Your task to perform on an android device: read, delete, or share a saved page in the chrome app Image 0: 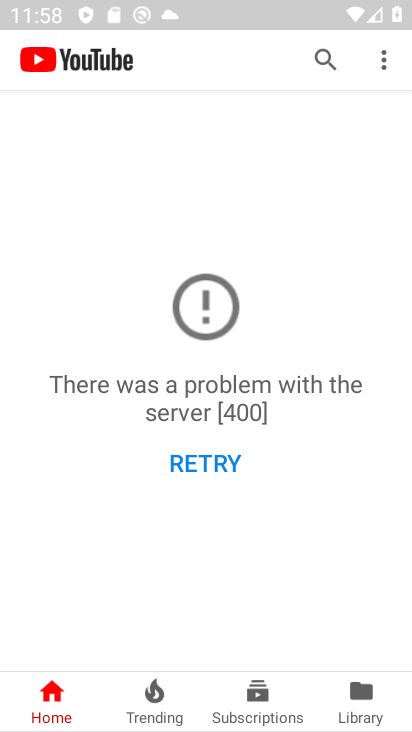
Step 0: press home button
Your task to perform on an android device: read, delete, or share a saved page in the chrome app Image 1: 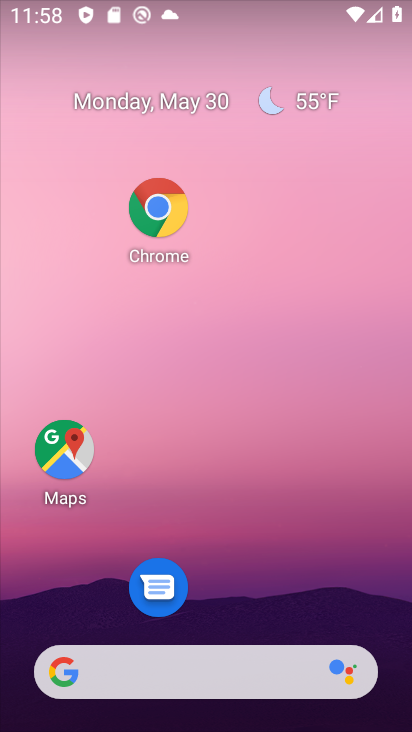
Step 1: click (163, 254)
Your task to perform on an android device: read, delete, or share a saved page in the chrome app Image 2: 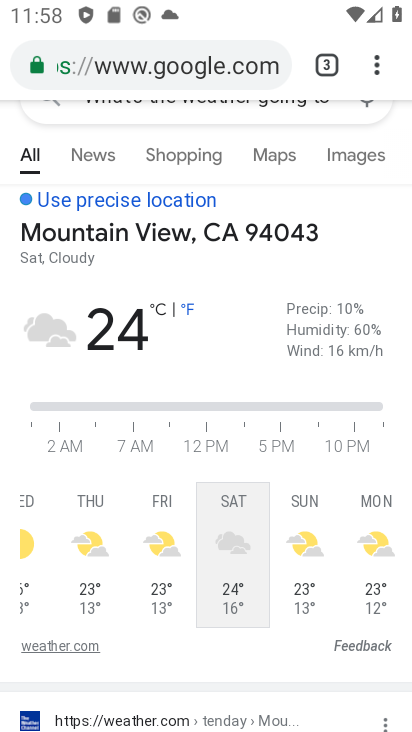
Step 2: click (369, 65)
Your task to perform on an android device: read, delete, or share a saved page in the chrome app Image 3: 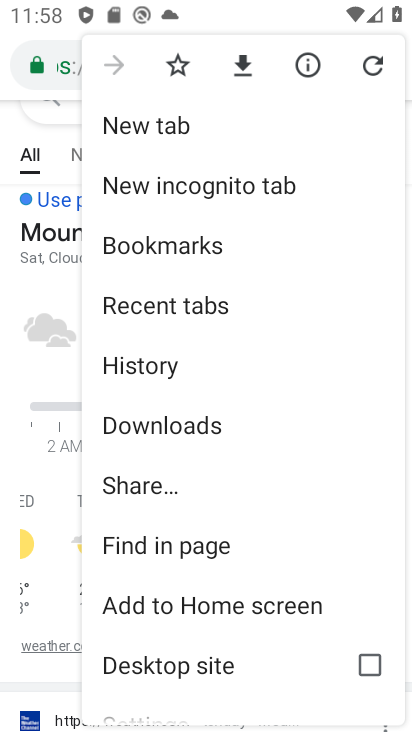
Step 3: click (212, 258)
Your task to perform on an android device: read, delete, or share a saved page in the chrome app Image 4: 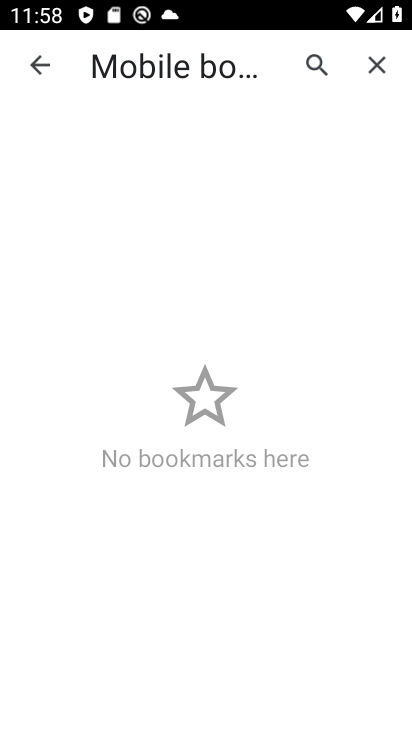
Step 4: click (191, 417)
Your task to perform on an android device: read, delete, or share a saved page in the chrome app Image 5: 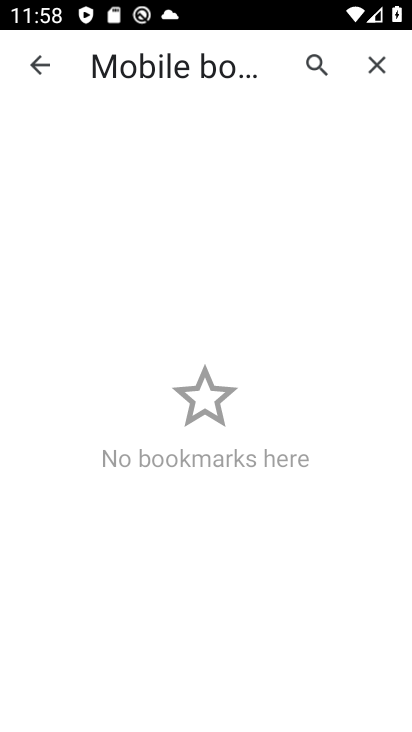
Step 5: click (182, 327)
Your task to perform on an android device: read, delete, or share a saved page in the chrome app Image 6: 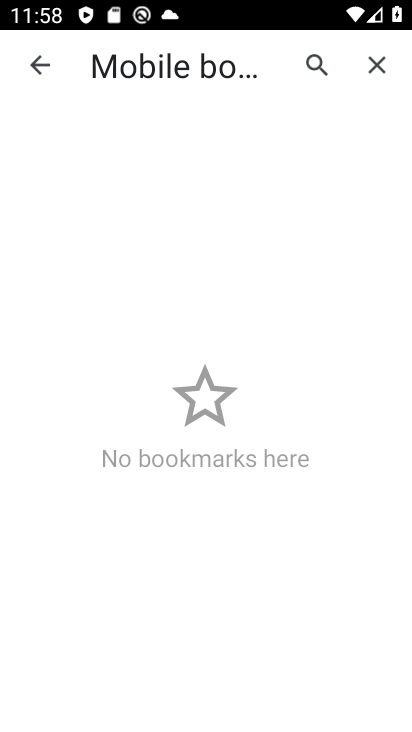
Step 6: click (182, 327)
Your task to perform on an android device: read, delete, or share a saved page in the chrome app Image 7: 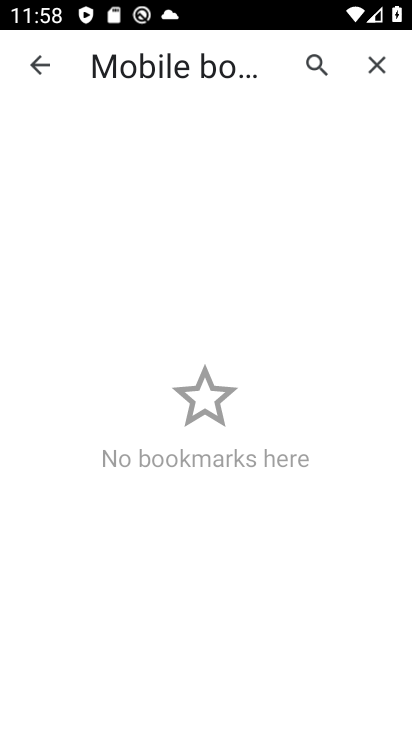
Step 7: click (182, 327)
Your task to perform on an android device: read, delete, or share a saved page in the chrome app Image 8: 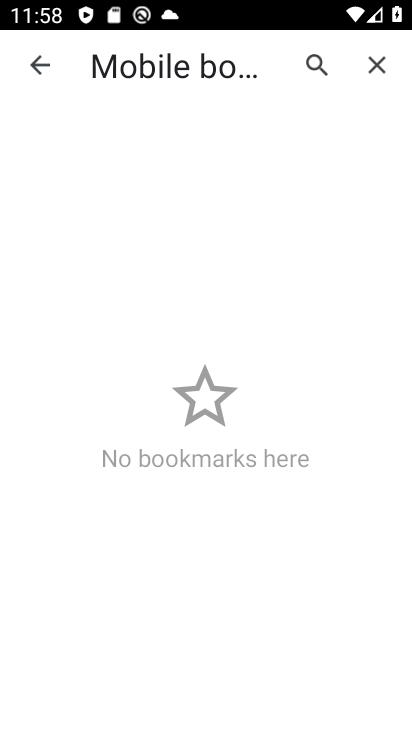
Step 8: task complete